Your task to perform on an android device: Go to eBay Image 0: 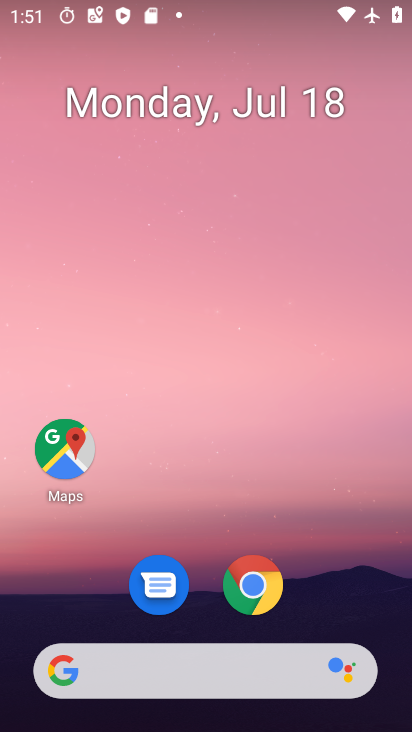
Step 0: press home button
Your task to perform on an android device: Go to eBay Image 1: 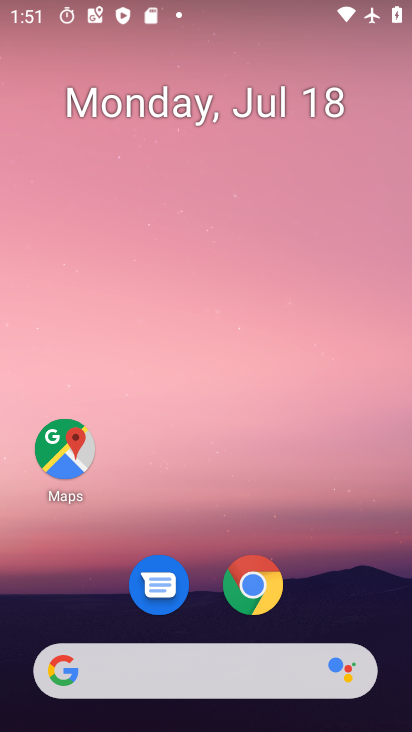
Step 1: click (244, 594)
Your task to perform on an android device: Go to eBay Image 2: 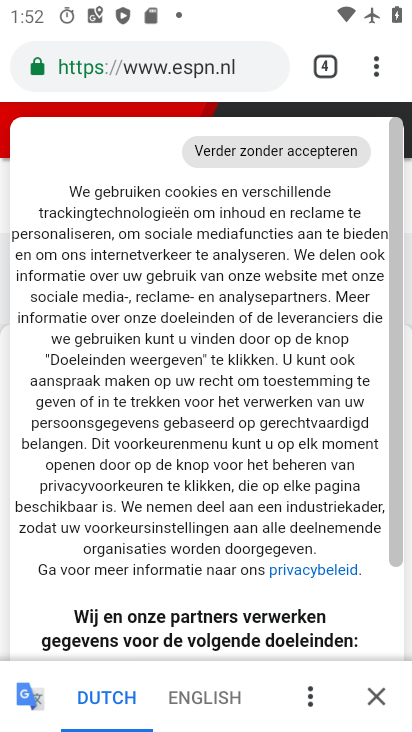
Step 2: drag from (373, 67) to (231, 139)
Your task to perform on an android device: Go to eBay Image 3: 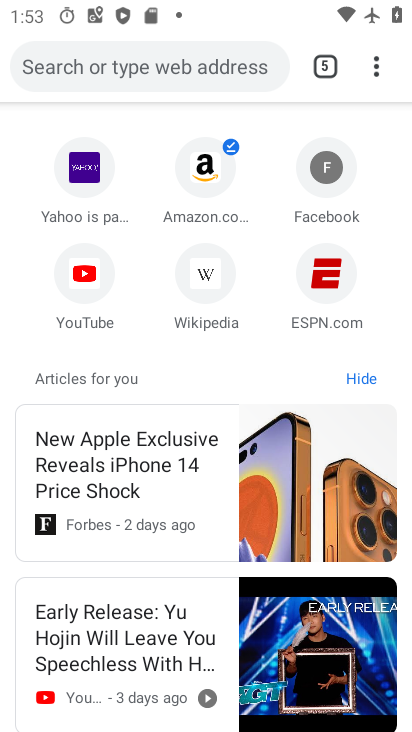
Step 3: click (127, 61)
Your task to perform on an android device: Go to eBay Image 4: 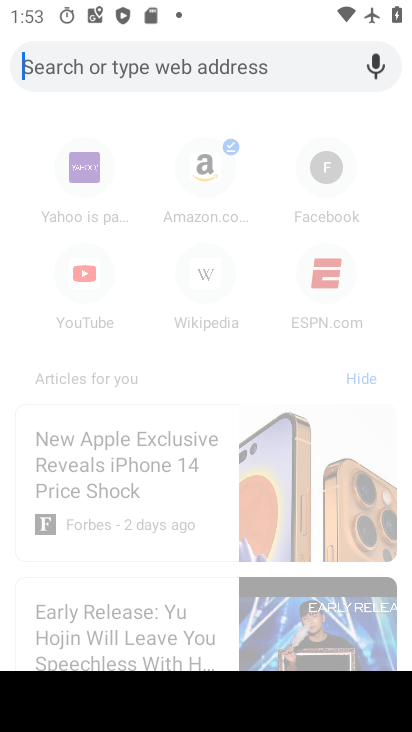
Step 4: type "ebay"
Your task to perform on an android device: Go to eBay Image 5: 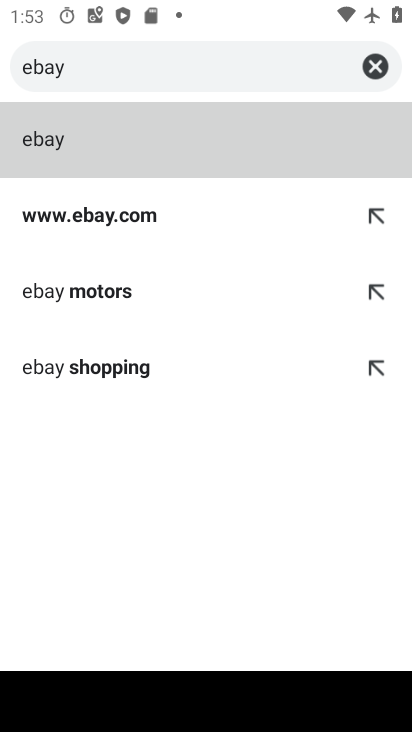
Step 5: click (36, 135)
Your task to perform on an android device: Go to eBay Image 6: 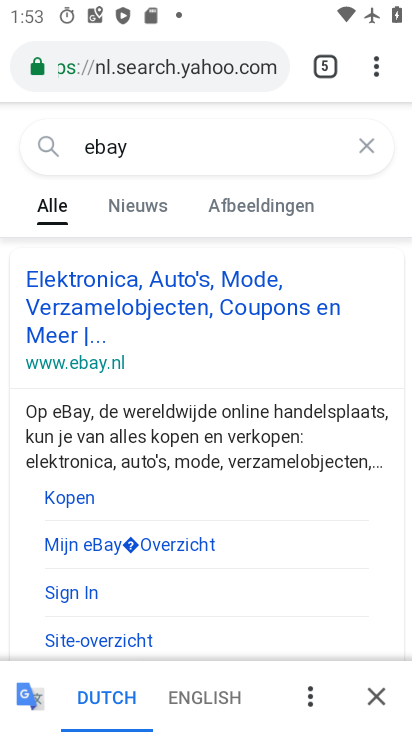
Step 6: click (207, 698)
Your task to perform on an android device: Go to eBay Image 7: 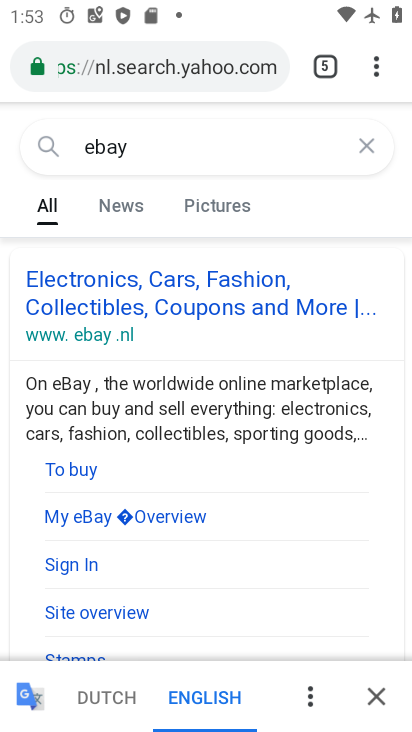
Step 7: click (186, 289)
Your task to perform on an android device: Go to eBay Image 8: 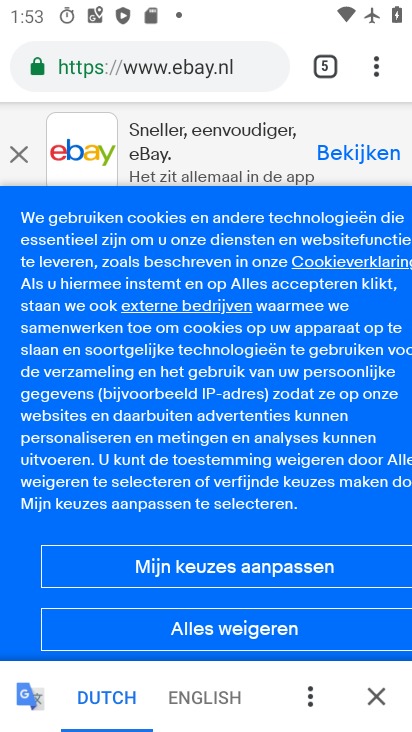
Step 8: click (198, 698)
Your task to perform on an android device: Go to eBay Image 9: 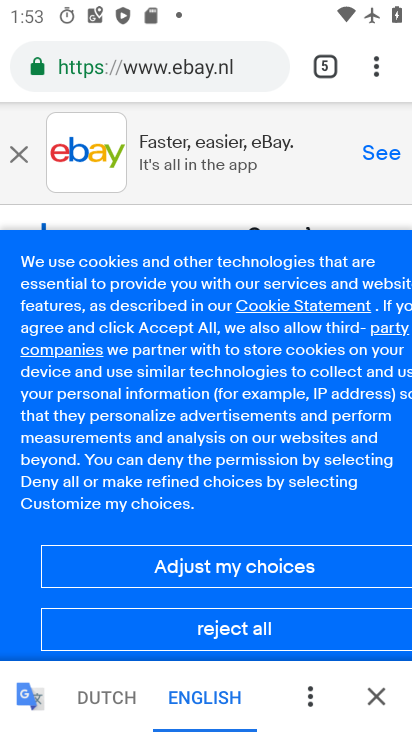
Step 9: drag from (288, 629) to (338, 331)
Your task to perform on an android device: Go to eBay Image 10: 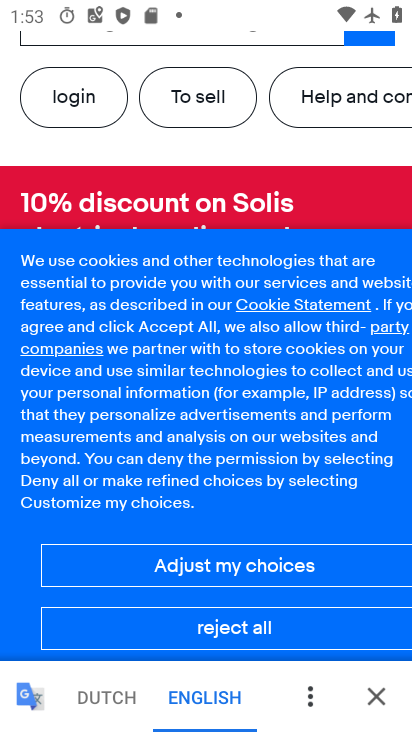
Step 10: drag from (293, 640) to (348, 286)
Your task to perform on an android device: Go to eBay Image 11: 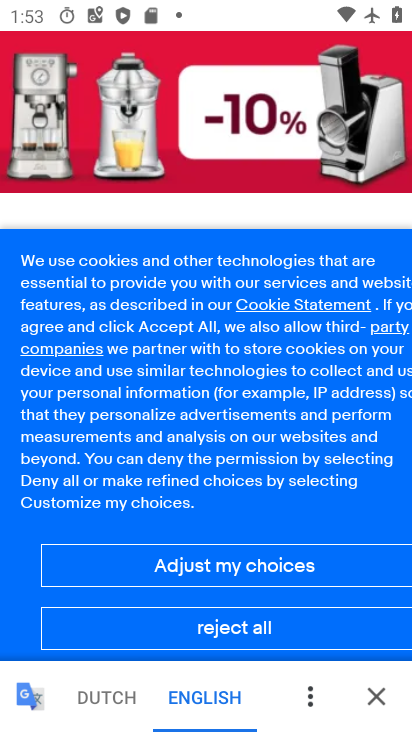
Step 11: drag from (291, 372) to (294, 626)
Your task to perform on an android device: Go to eBay Image 12: 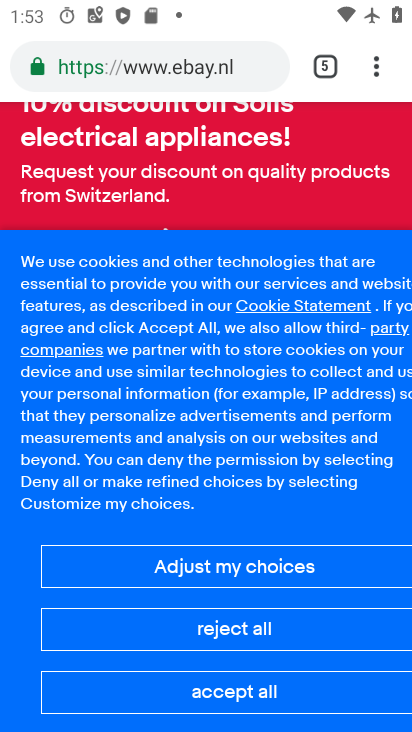
Step 12: click (217, 691)
Your task to perform on an android device: Go to eBay Image 13: 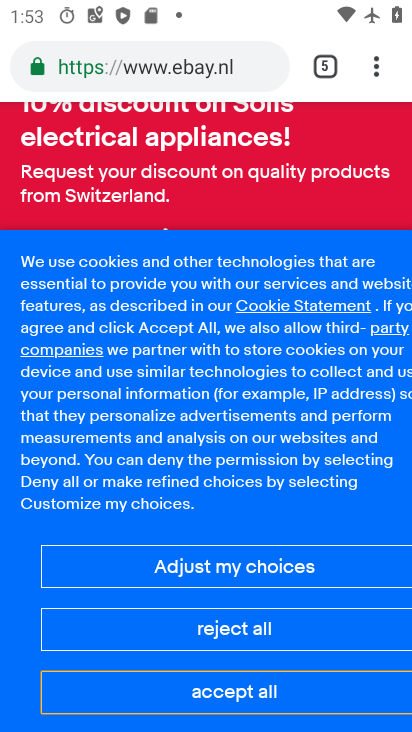
Step 13: click (218, 692)
Your task to perform on an android device: Go to eBay Image 14: 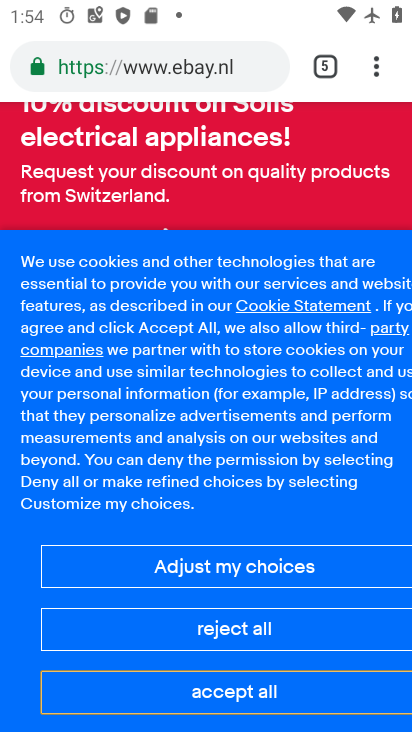
Step 14: click (237, 691)
Your task to perform on an android device: Go to eBay Image 15: 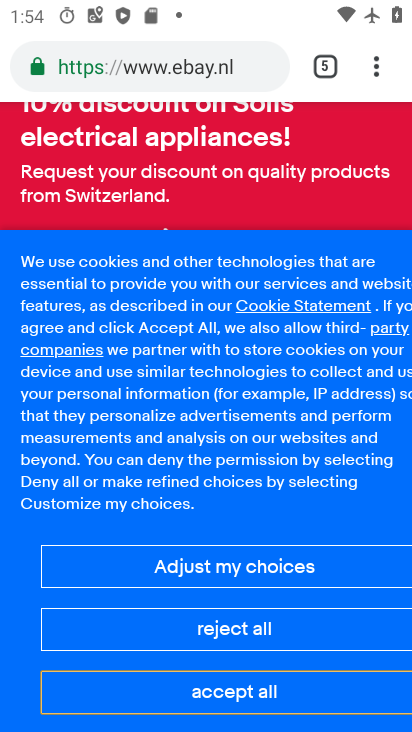
Step 15: click (237, 690)
Your task to perform on an android device: Go to eBay Image 16: 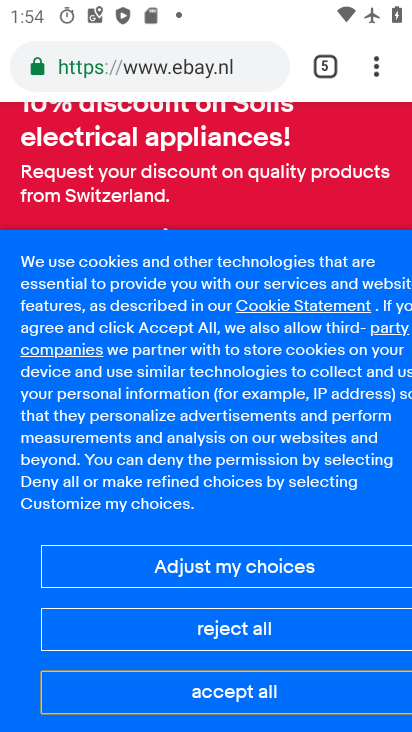
Step 16: click (249, 700)
Your task to perform on an android device: Go to eBay Image 17: 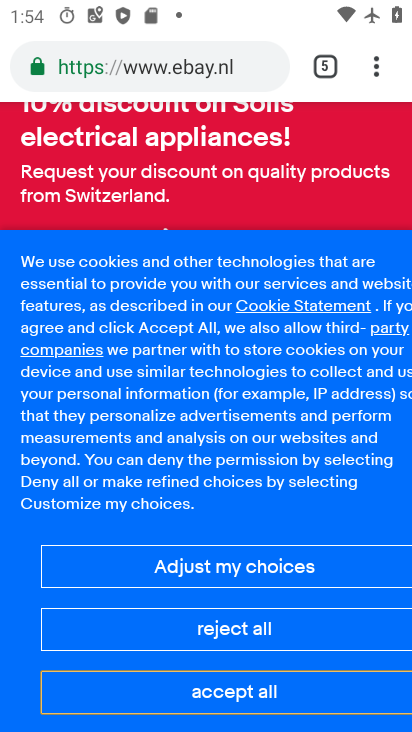
Step 17: click (231, 703)
Your task to perform on an android device: Go to eBay Image 18: 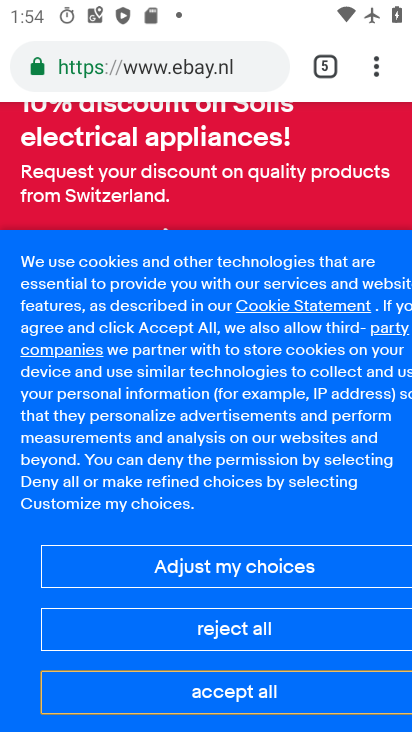
Step 18: click (228, 688)
Your task to perform on an android device: Go to eBay Image 19: 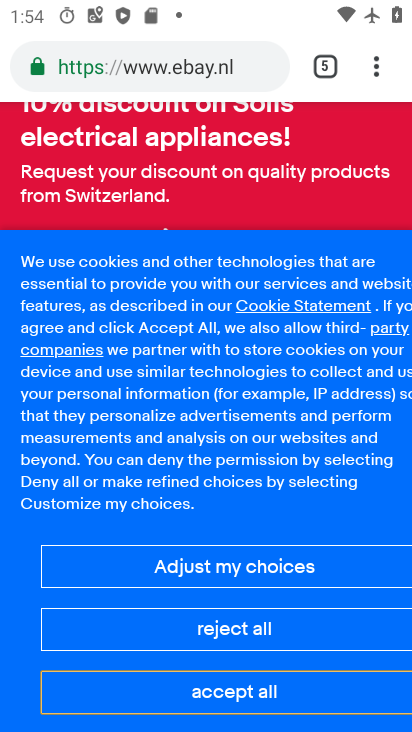
Step 19: click (231, 687)
Your task to perform on an android device: Go to eBay Image 20: 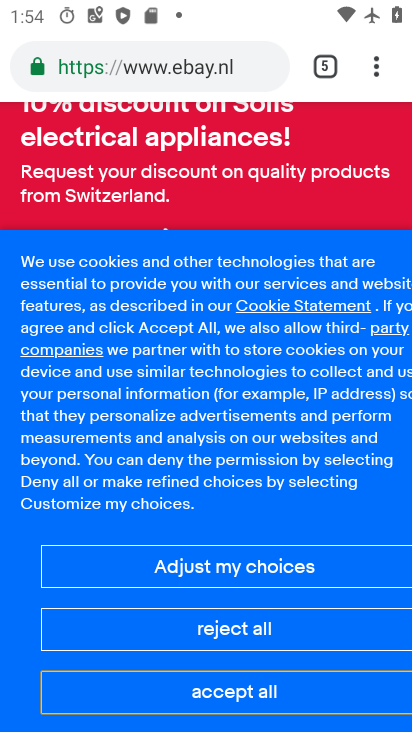
Step 20: task complete